Your task to perform on an android device: check google app version Image 0: 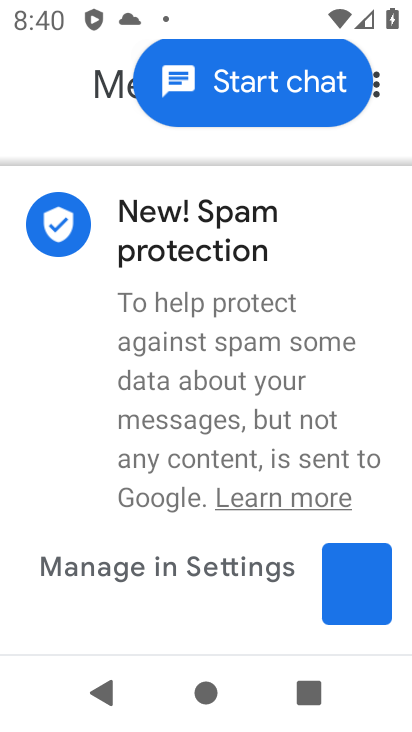
Step 0: press home button
Your task to perform on an android device: check google app version Image 1: 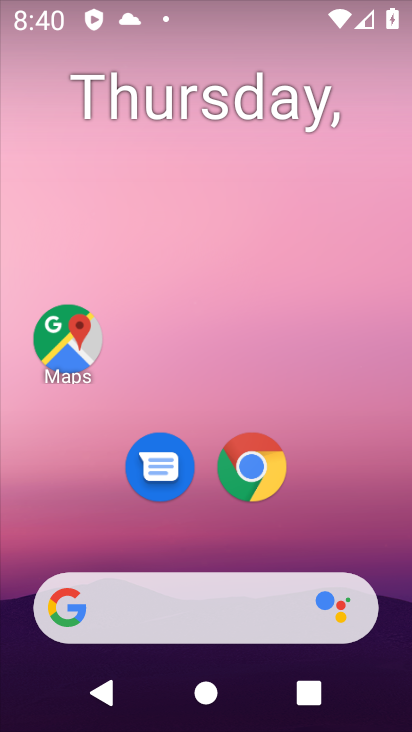
Step 1: drag from (206, 531) to (192, 54)
Your task to perform on an android device: check google app version Image 2: 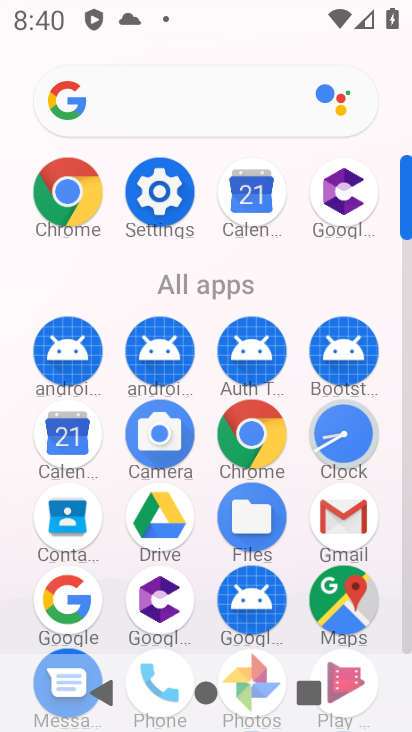
Step 2: click (67, 600)
Your task to perform on an android device: check google app version Image 3: 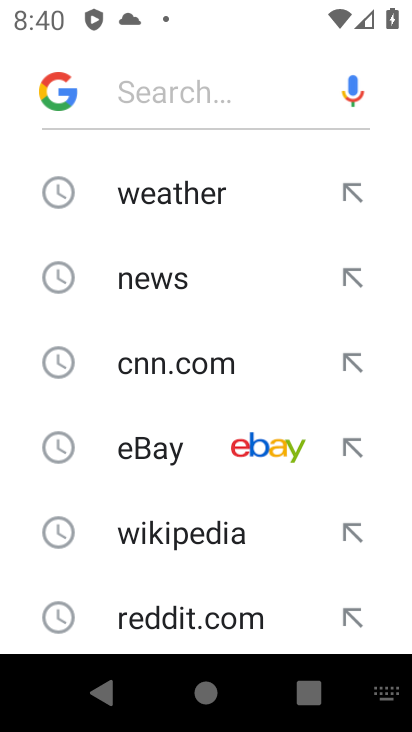
Step 3: click (59, 89)
Your task to perform on an android device: check google app version Image 4: 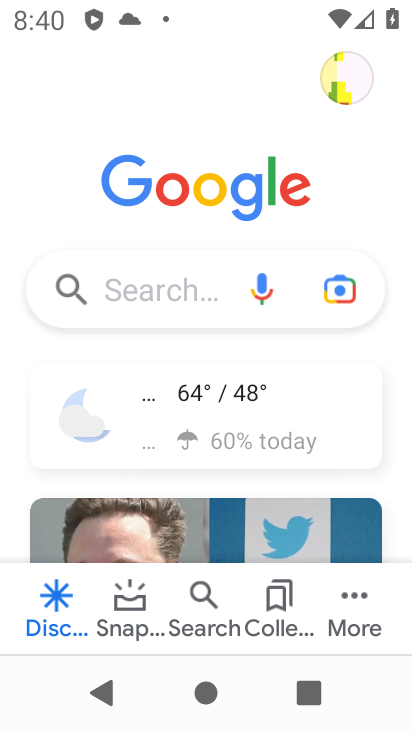
Step 4: click (364, 597)
Your task to perform on an android device: check google app version Image 5: 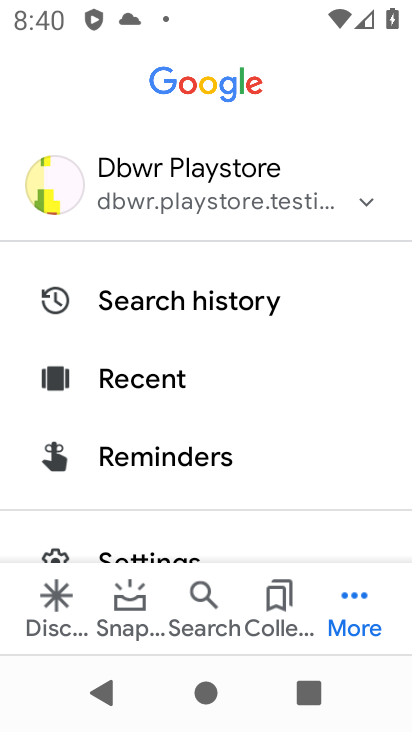
Step 5: drag from (310, 517) to (295, 425)
Your task to perform on an android device: check google app version Image 6: 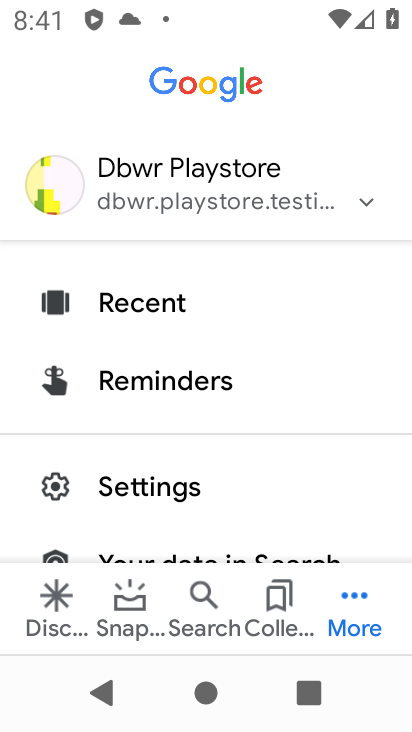
Step 6: click (224, 475)
Your task to perform on an android device: check google app version Image 7: 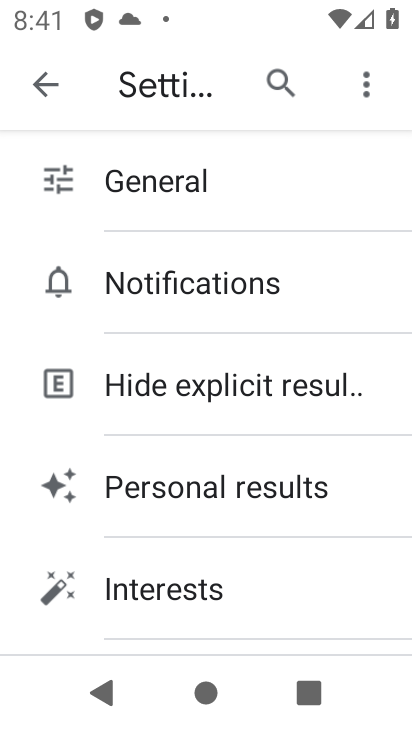
Step 7: drag from (221, 544) to (218, 395)
Your task to perform on an android device: check google app version Image 8: 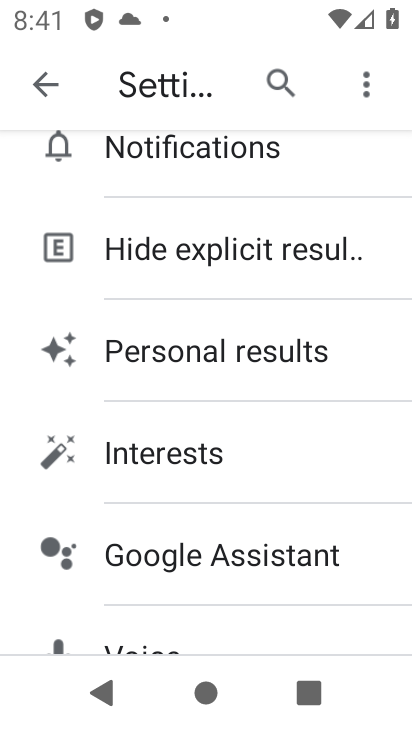
Step 8: drag from (190, 477) to (176, 393)
Your task to perform on an android device: check google app version Image 9: 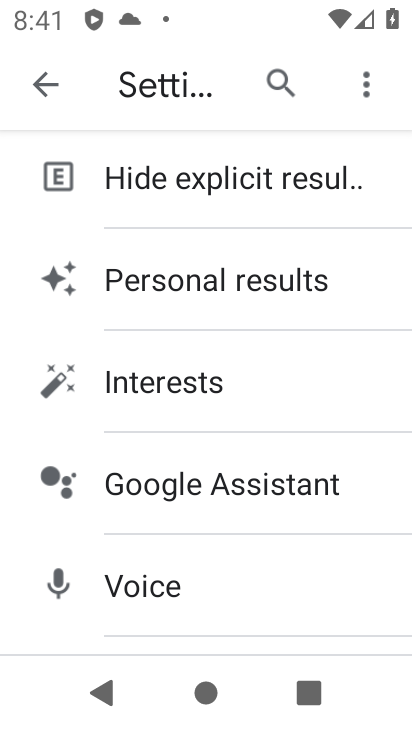
Step 9: drag from (182, 496) to (174, 414)
Your task to perform on an android device: check google app version Image 10: 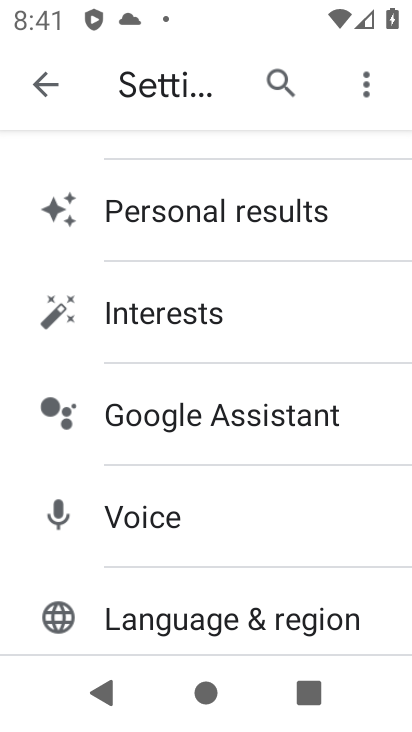
Step 10: drag from (188, 512) to (187, 426)
Your task to perform on an android device: check google app version Image 11: 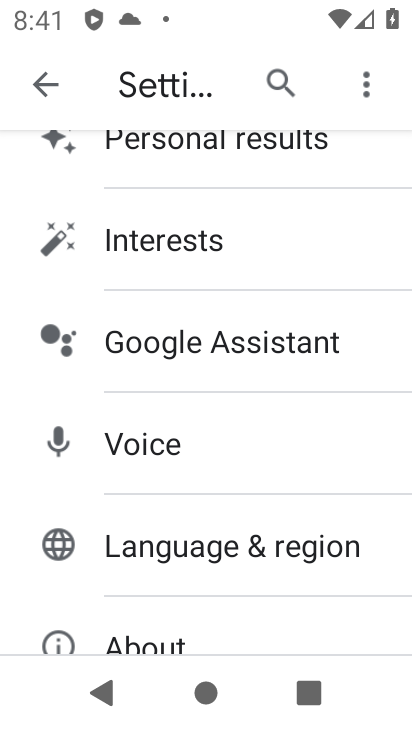
Step 11: drag from (199, 508) to (189, 393)
Your task to perform on an android device: check google app version Image 12: 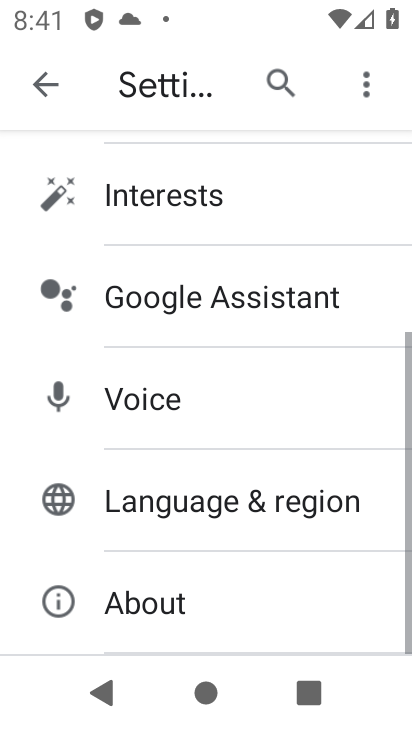
Step 12: click (172, 618)
Your task to perform on an android device: check google app version Image 13: 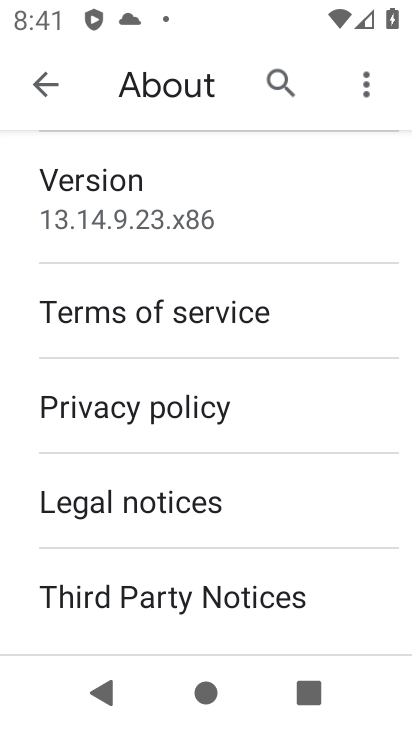
Step 13: click (142, 180)
Your task to perform on an android device: check google app version Image 14: 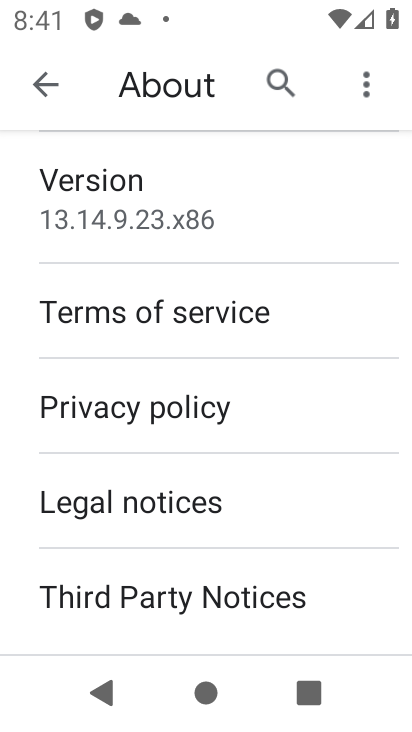
Step 14: task complete